Your task to perform on an android device: Open wifi settings Image 0: 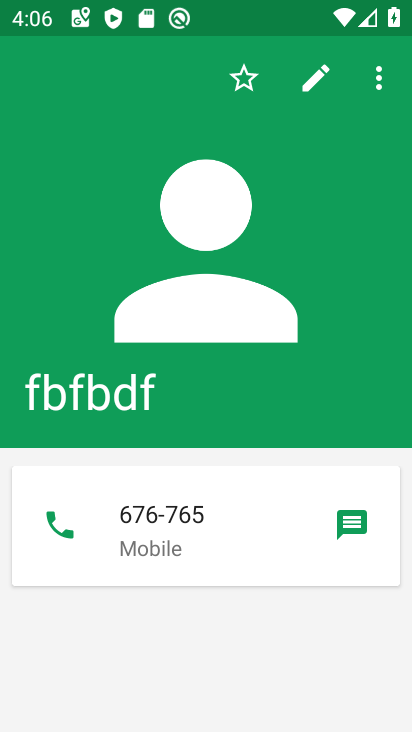
Step 0: press back button
Your task to perform on an android device: Open wifi settings Image 1: 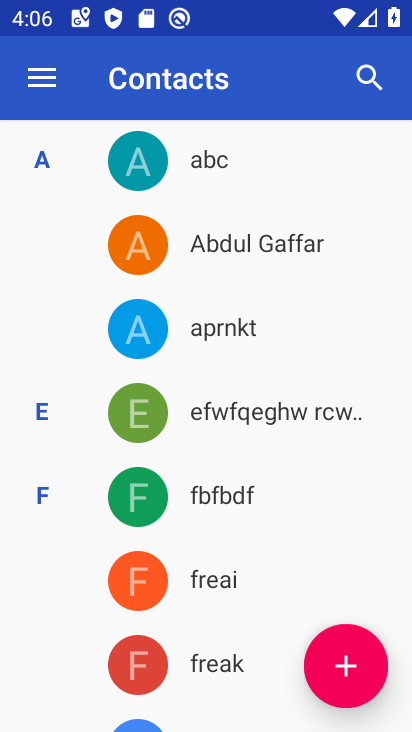
Step 1: press back button
Your task to perform on an android device: Open wifi settings Image 2: 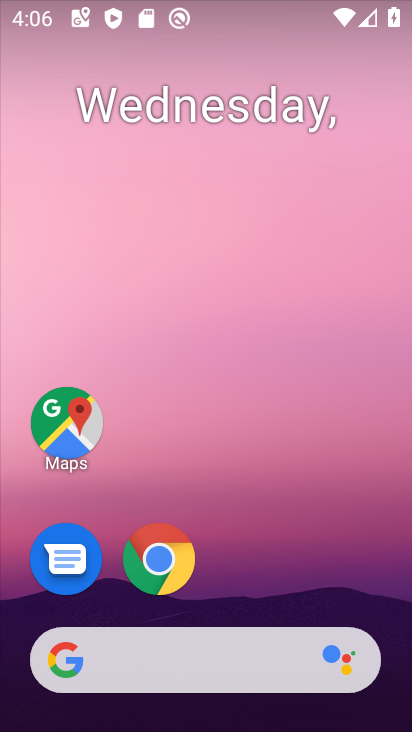
Step 2: drag from (193, 32) to (193, 593)
Your task to perform on an android device: Open wifi settings Image 3: 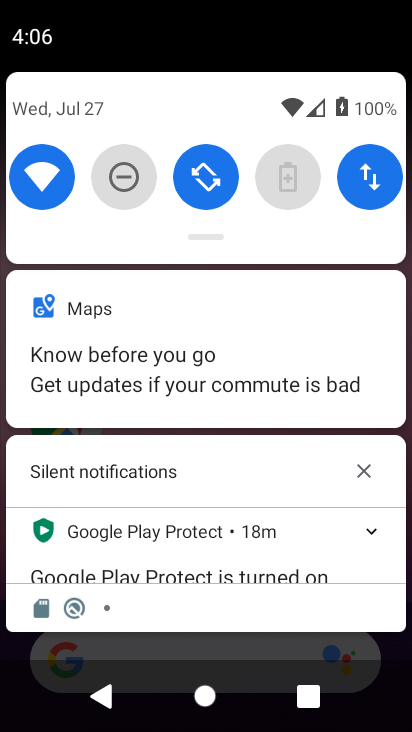
Step 3: click (48, 187)
Your task to perform on an android device: Open wifi settings Image 4: 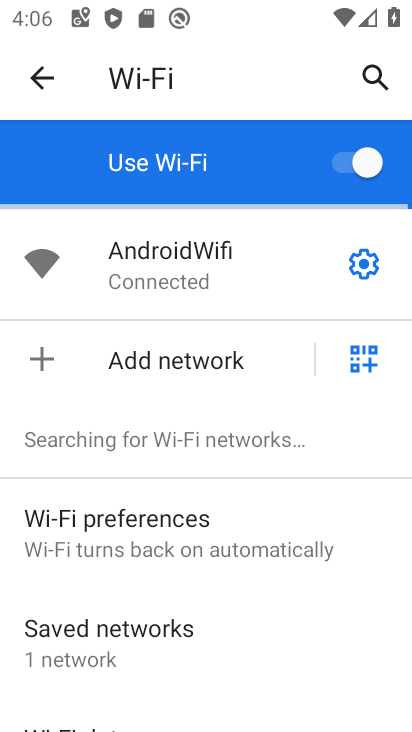
Step 4: task complete